Your task to perform on an android device: create a new album in the google photos Image 0: 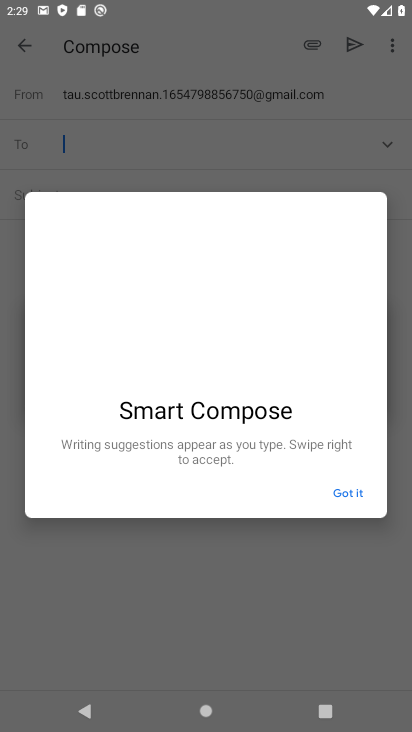
Step 0: press back button
Your task to perform on an android device: create a new album in the google photos Image 1: 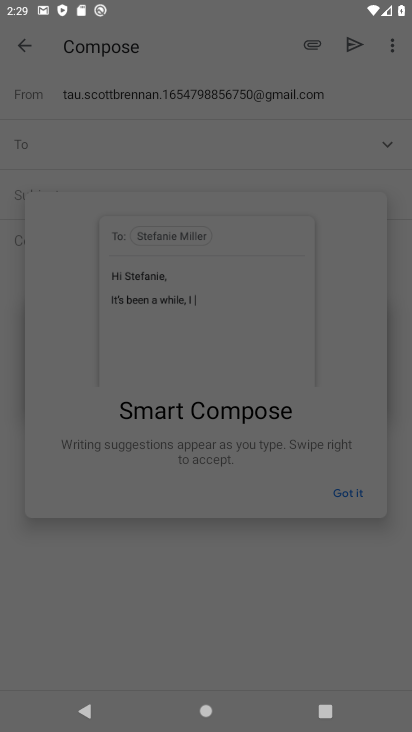
Step 1: click (346, 497)
Your task to perform on an android device: create a new album in the google photos Image 2: 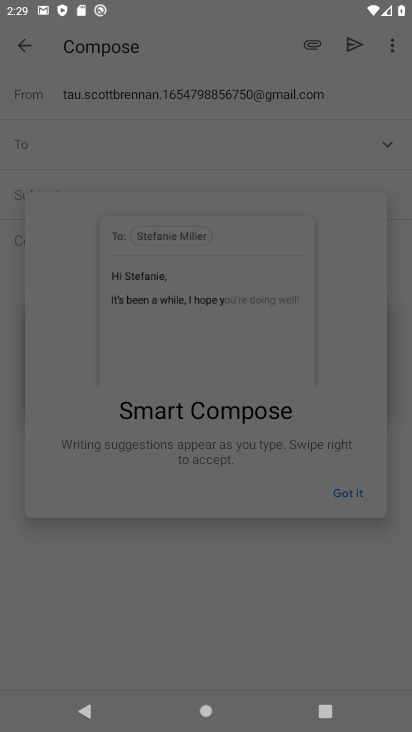
Step 2: click (352, 495)
Your task to perform on an android device: create a new album in the google photos Image 3: 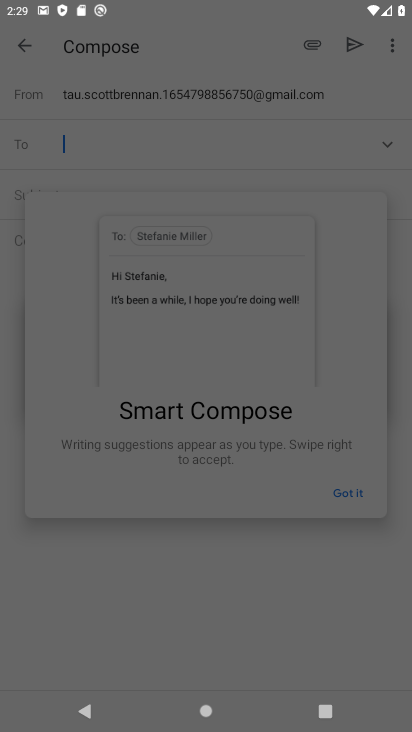
Step 3: click (352, 495)
Your task to perform on an android device: create a new album in the google photos Image 4: 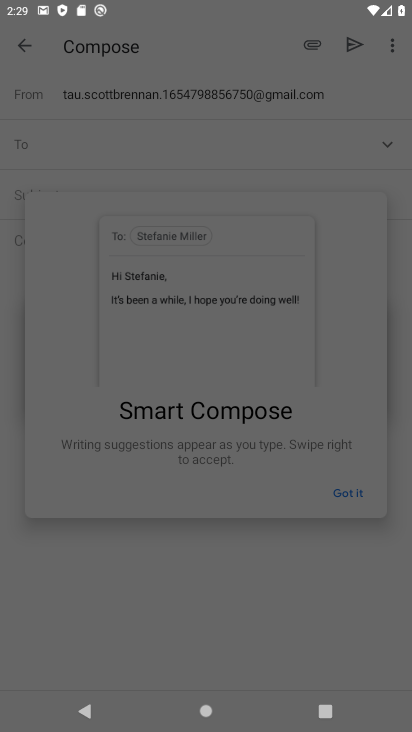
Step 4: click (352, 495)
Your task to perform on an android device: create a new album in the google photos Image 5: 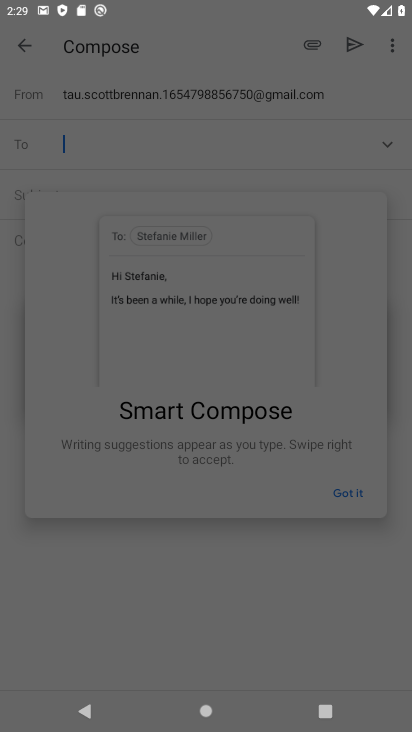
Step 5: click (352, 495)
Your task to perform on an android device: create a new album in the google photos Image 6: 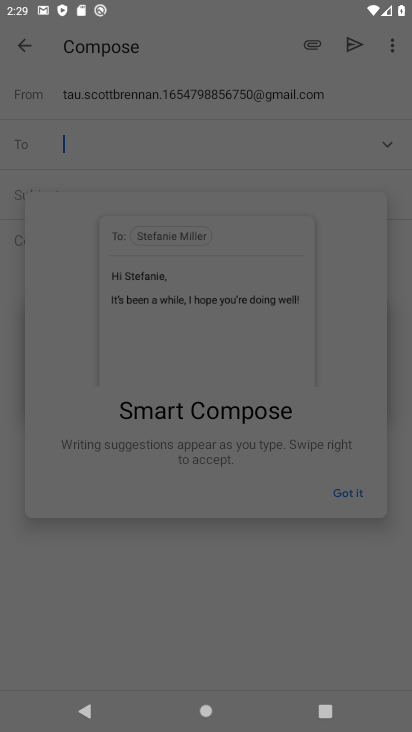
Step 6: click (352, 495)
Your task to perform on an android device: create a new album in the google photos Image 7: 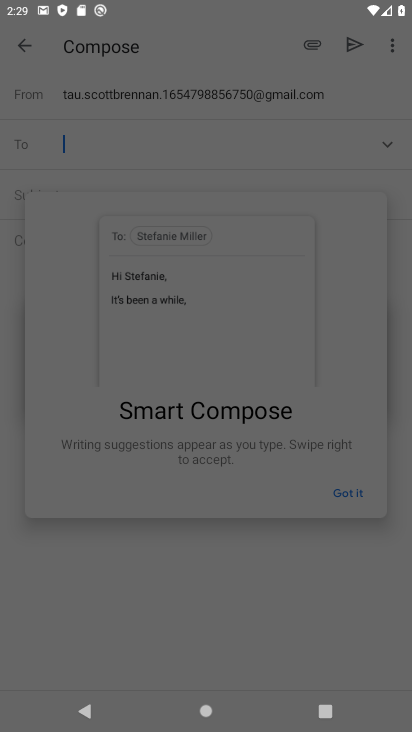
Step 7: press home button
Your task to perform on an android device: create a new album in the google photos Image 8: 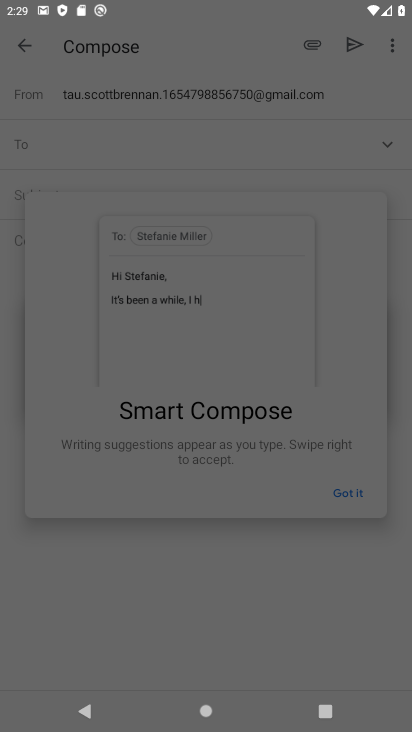
Step 8: press home button
Your task to perform on an android device: create a new album in the google photos Image 9: 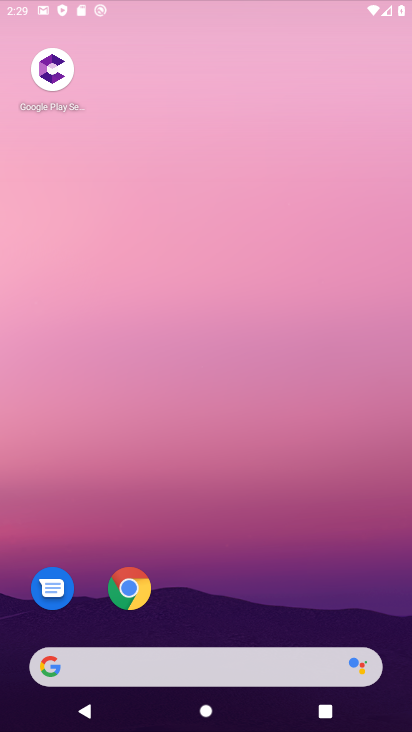
Step 9: press home button
Your task to perform on an android device: create a new album in the google photos Image 10: 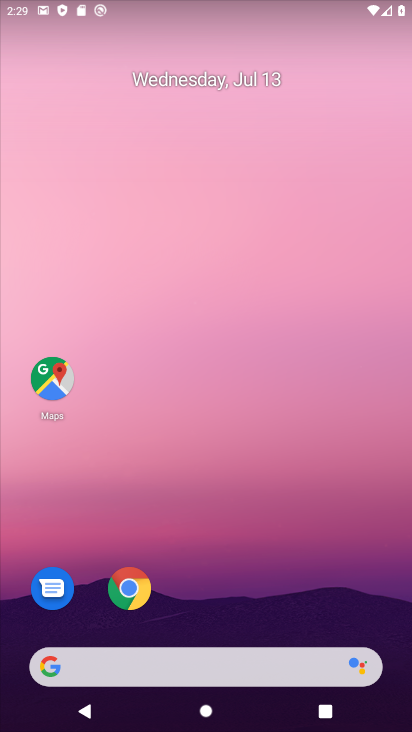
Step 10: drag from (239, 637) to (78, 110)
Your task to perform on an android device: create a new album in the google photos Image 11: 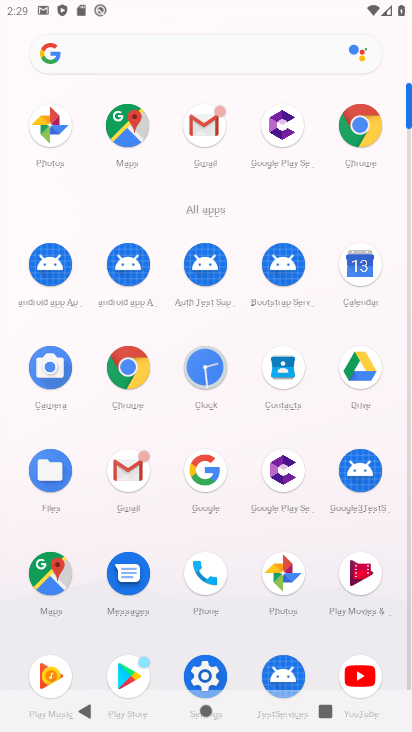
Step 11: click (293, 565)
Your task to perform on an android device: create a new album in the google photos Image 12: 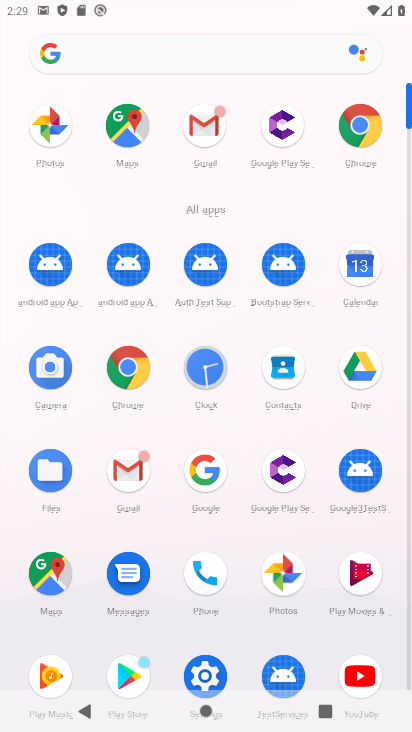
Step 12: click (294, 571)
Your task to perform on an android device: create a new album in the google photos Image 13: 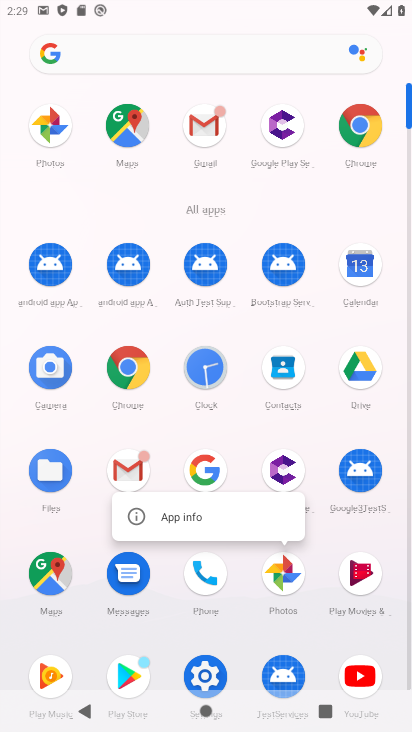
Step 13: click (294, 580)
Your task to perform on an android device: create a new album in the google photos Image 14: 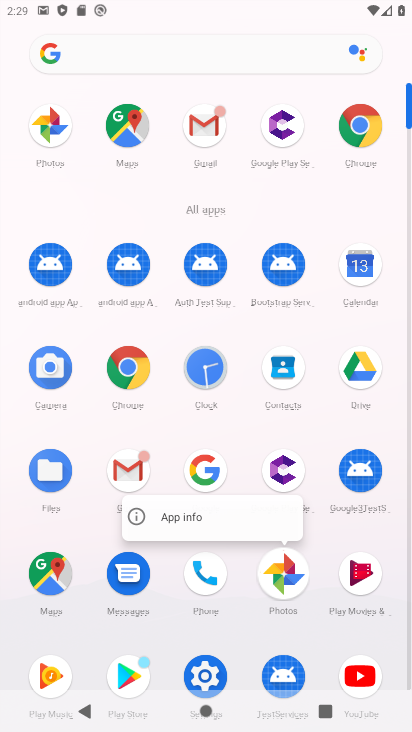
Step 14: click (290, 567)
Your task to perform on an android device: create a new album in the google photos Image 15: 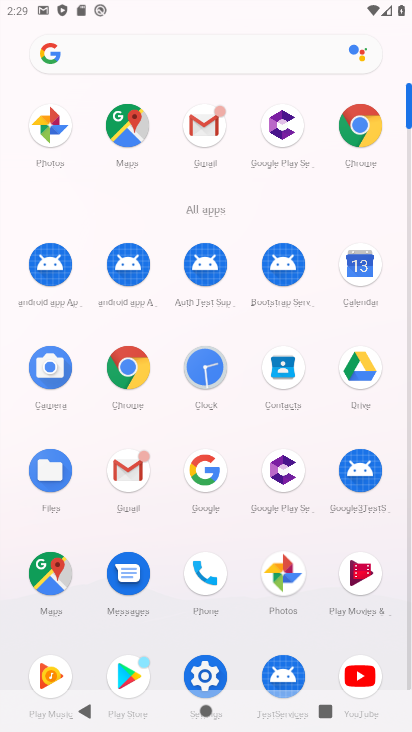
Step 15: click (290, 573)
Your task to perform on an android device: create a new album in the google photos Image 16: 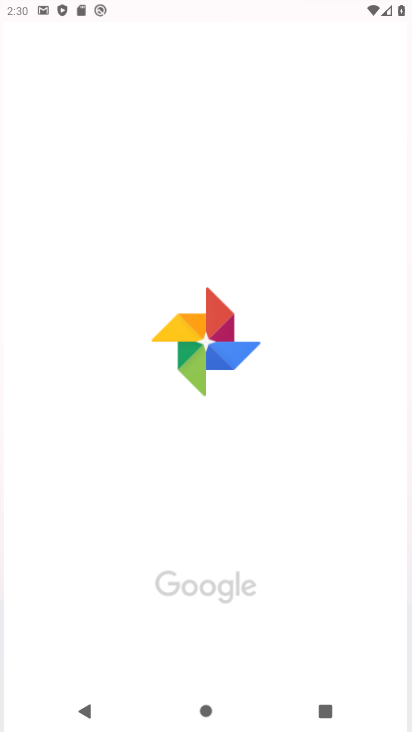
Step 16: click (290, 573)
Your task to perform on an android device: create a new album in the google photos Image 17: 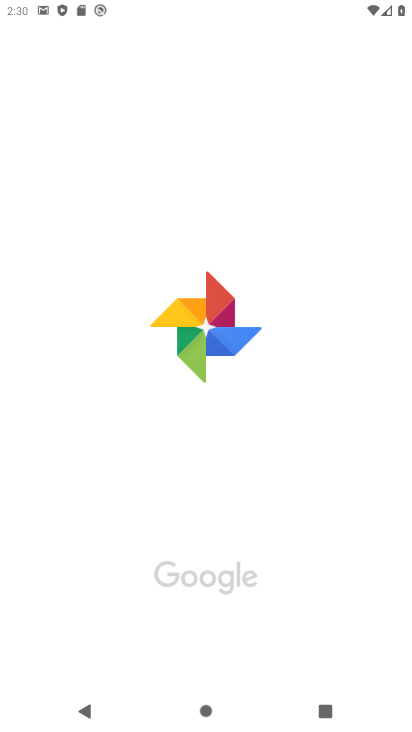
Step 17: click (290, 573)
Your task to perform on an android device: create a new album in the google photos Image 18: 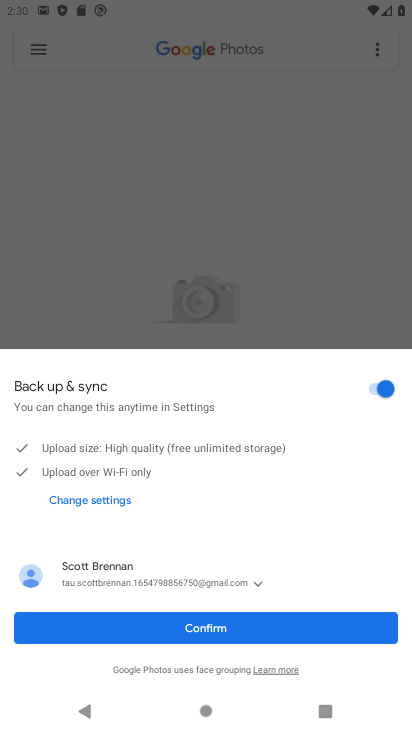
Step 18: click (218, 611)
Your task to perform on an android device: create a new album in the google photos Image 19: 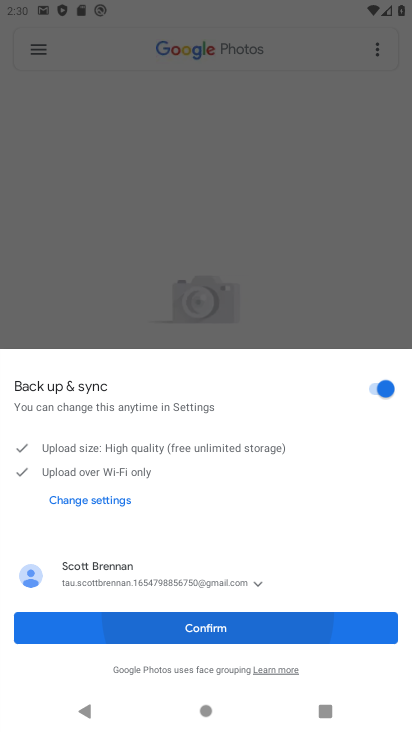
Step 19: click (219, 614)
Your task to perform on an android device: create a new album in the google photos Image 20: 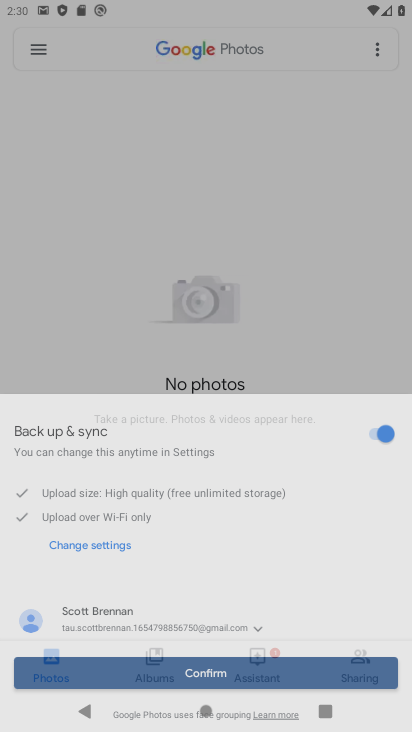
Step 20: click (220, 616)
Your task to perform on an android device: create a new album in the google photos Image 21: 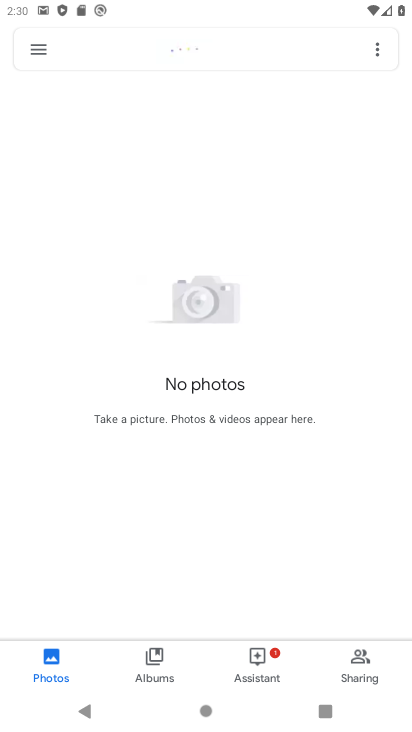
Step 21: click (170, 658)
Your task to perform on an android device: create a new album in the google photos Image 22: 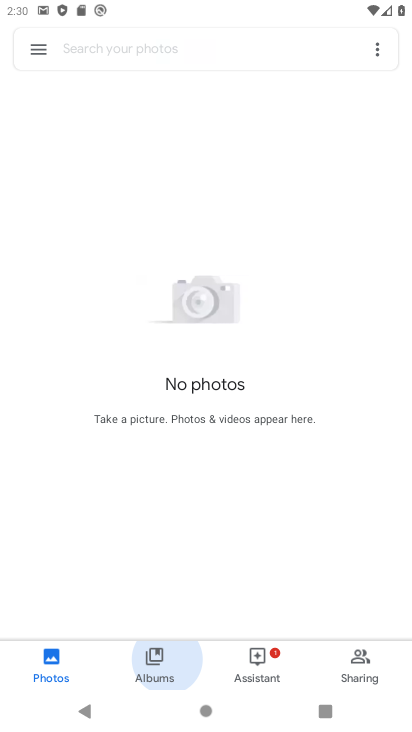
Step 22: click (161, 658)
Your task to perform on an android device: create a new album in the google photos Image 23: 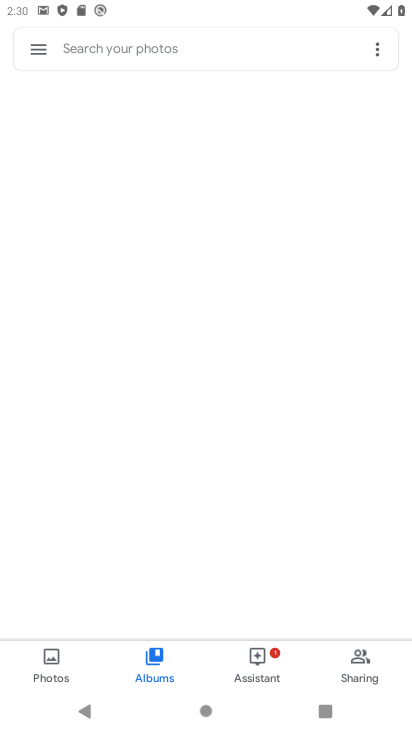
Step 23: click (157, 659)
Your task to perform on an android device: create a new album in the google photos Image 24: 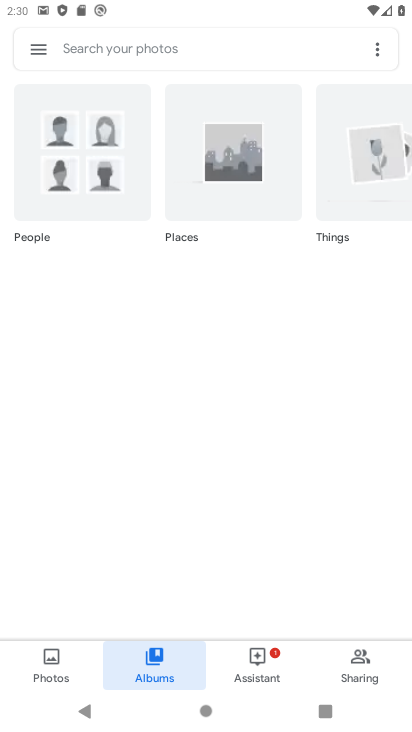
Step 24: click (158, 659)
Your task to perform on an android device: create a new album in the google photos Image 25: 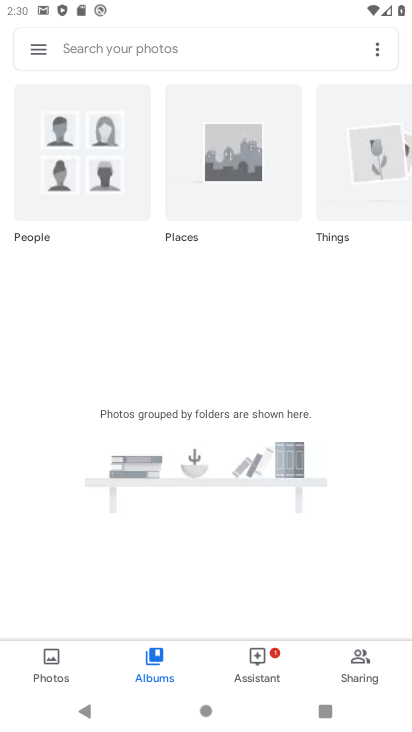
Step 25: click (380, 53)
Your task to perform on an android device: create a new album in the google photos Image 26: 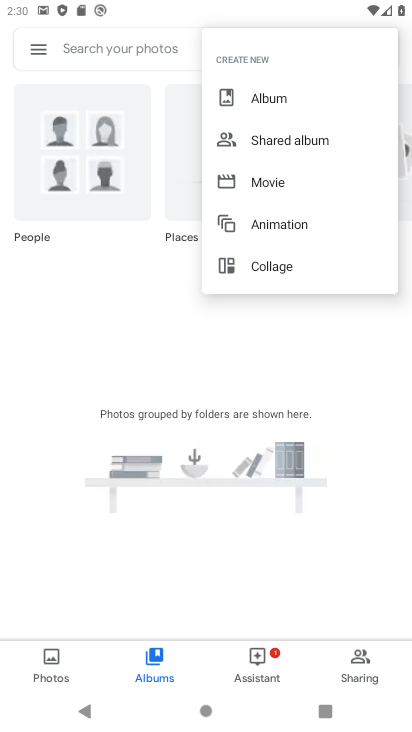
Step 26: click (264, 99)
Your task to perform on an android device: create a new album in the google photos Image 27: 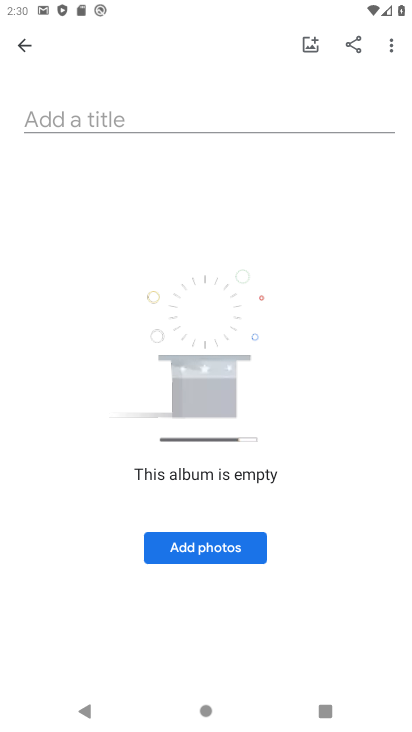
Step 27: click (62, 112)
Your task to perform on an android device: create a new album in the google photos Image 28: 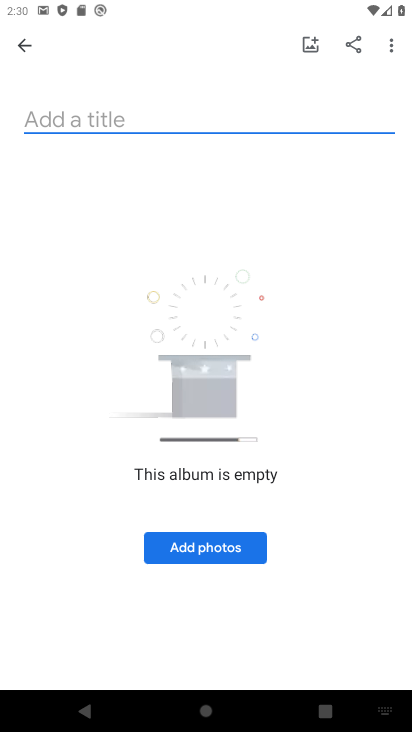
Step 28: type "mohanj"
Your task to perform on an android device: create a new album in the google photos Image 29: 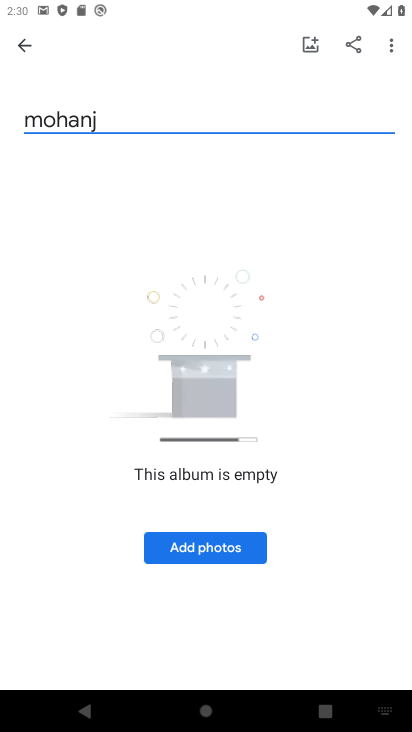
Step 29: click (226, 545)
Your task to perform on an android device: create a new album in the google photos Image 30: 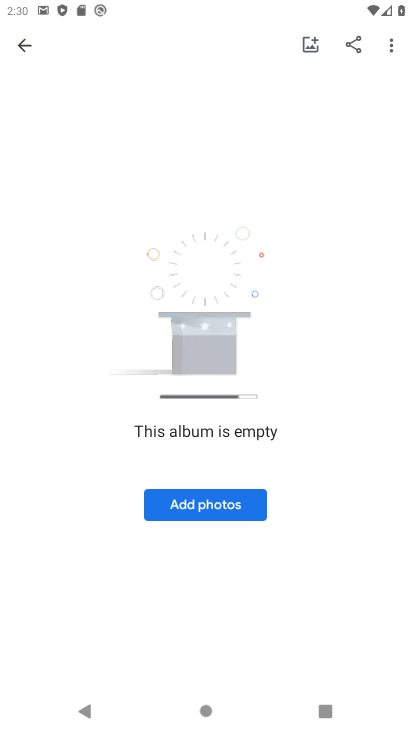
Step 30: click (208, 499)
Your task to perform on an android device: create a new album in the google photos Image 31: 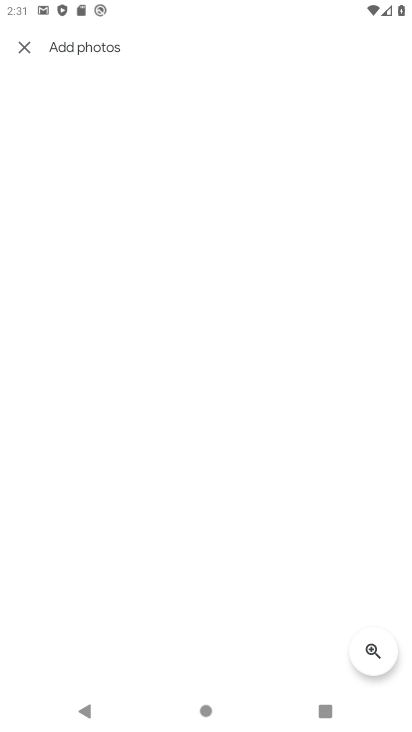
Step 31: task complete